Your task to perform on an android device: find photos in the google photos app Image 0: 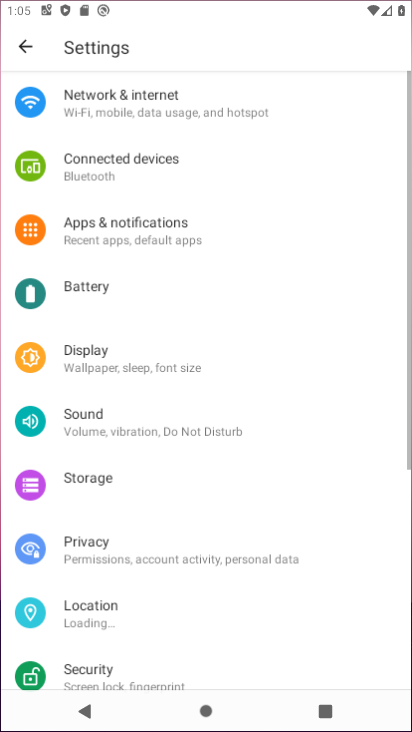
Step 0: drag from (306, 541) to (244, 128)
Your task to perform on an android device: find photos in the google photos app Image 1: 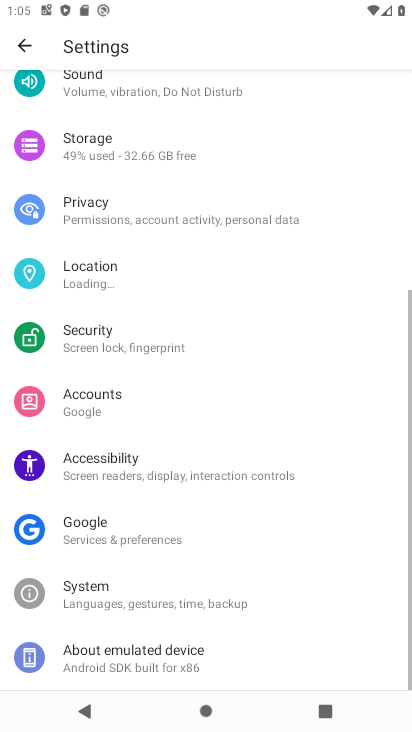
Step 1: press home button
Your task to perform on an android device: find photos in the google photos app Image 2: 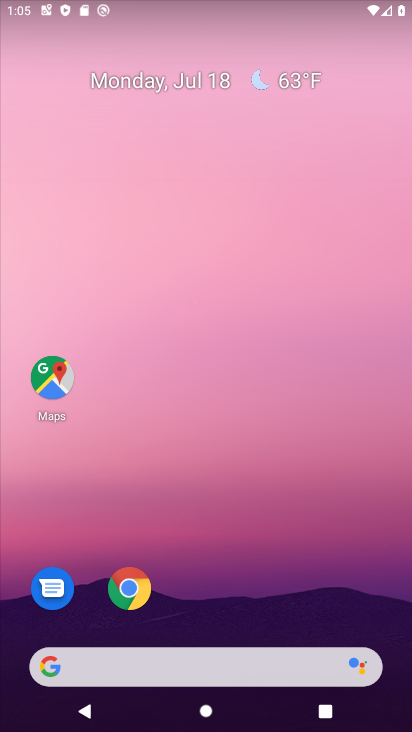
Step 2: drag from (198, 582) to (182, 192)
Your task to perform on an android device: find photos in the google photos app Image 3: 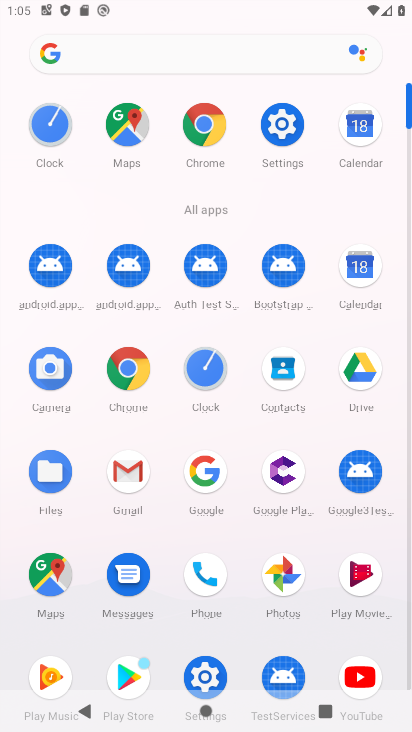
Step 3: click (275, 578)
Your task to perform on an android device: find photos in the google photos app Image 4: 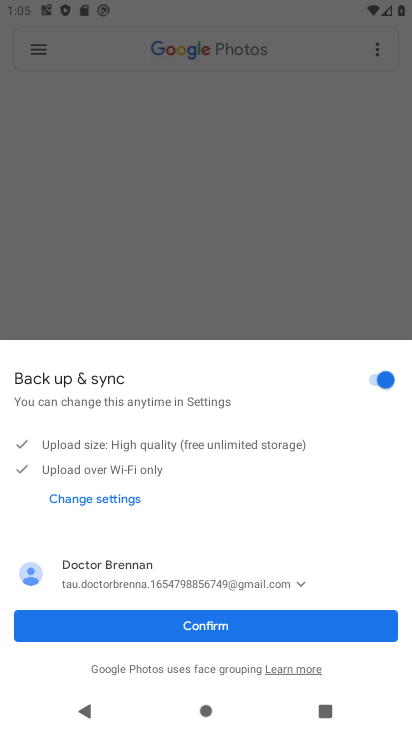
Step 4: click (181, 628)
Your task to perform on an android device: find photos in the google photos app Image 5: 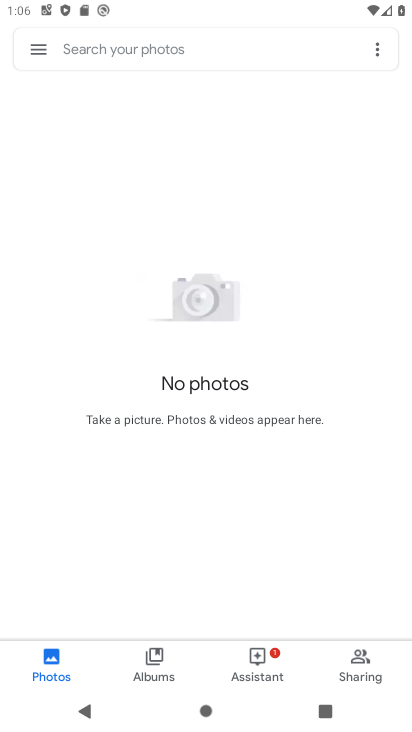
Step 5: click (149, 44)
Your task to perform on an android device: find photos in the google photos app Image 6: 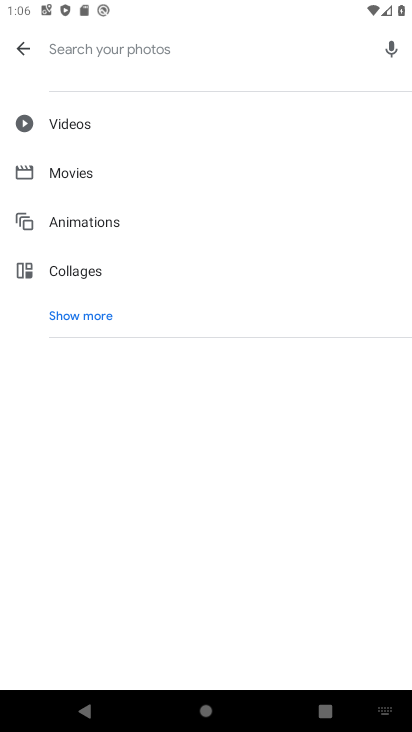
Step 6: task complete